Your task to perform on an android device: find which apps use the phone's location Image 0: 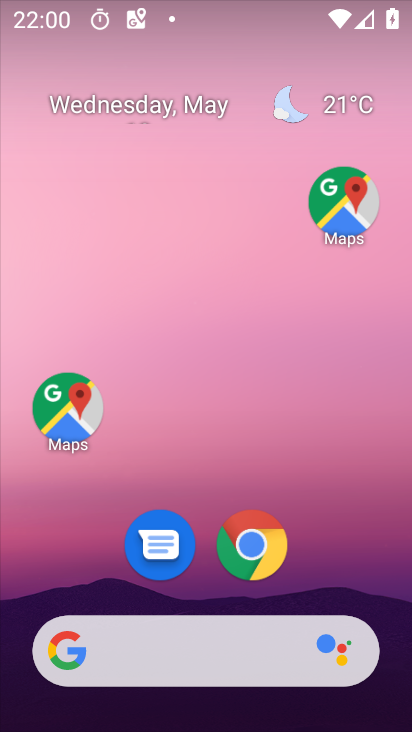
Step 0: drag from (315, 584) to (229, 3)
Your task to perform on an android device: find which apps use the phone's location Image 1: 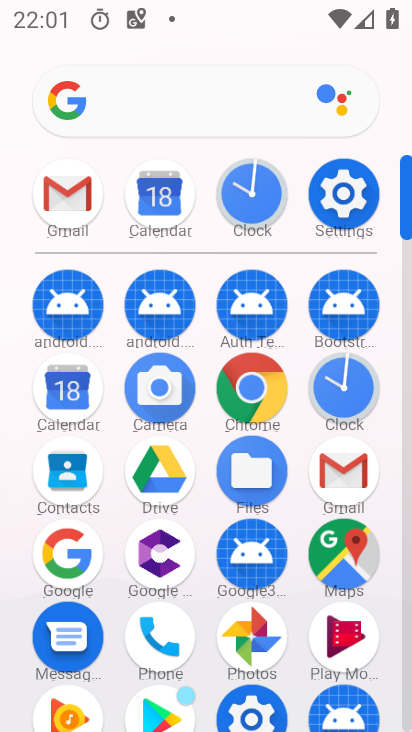
Step 1: click (329, 186)
Your task to perform on an android device: find which apps use the phone's location Image 2: 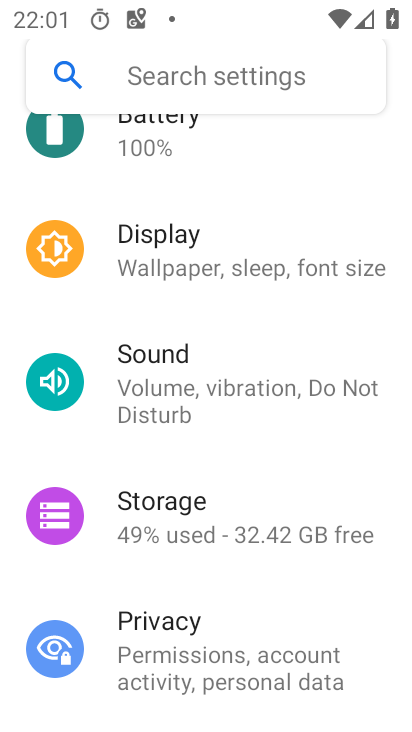
Step 2: drag from (217, 581) to (190, 375)
Your task to perform on an android device: find which apps use the phone's location Image 3: 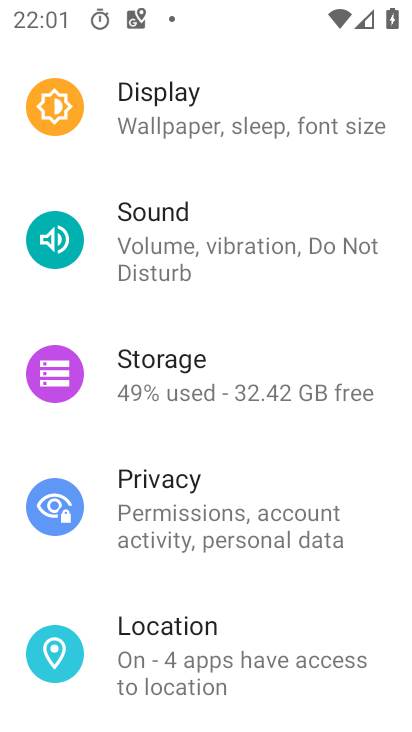
Step 3: click (196, 659)
Your task to perform on an android device: find which apps use the phone's location Image 4: 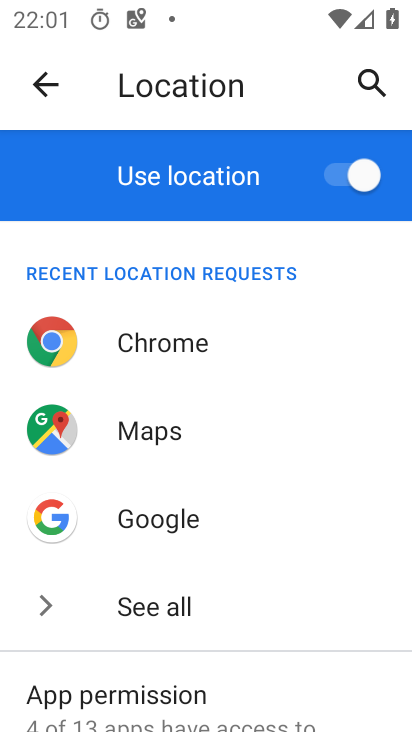
Step 4: drag from (164, 675) to (164, 469)
Your task to perform on an android device: find which apps use the phone's location Image 5: 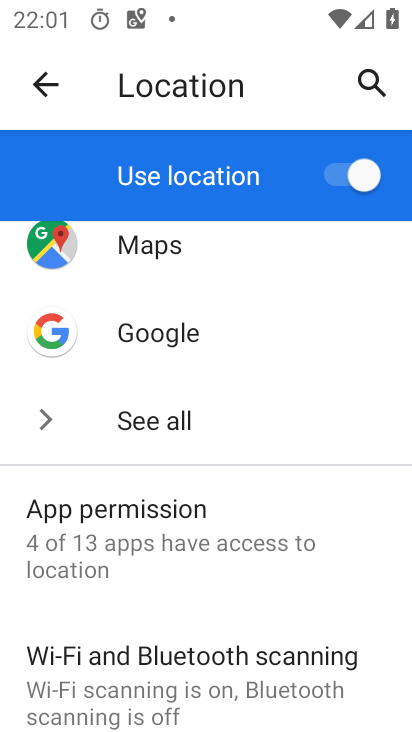
Step 5: drag from (150, 690) to (162, 417)
Your task to perform on an android device: find which apps use the phone's location Image 6: 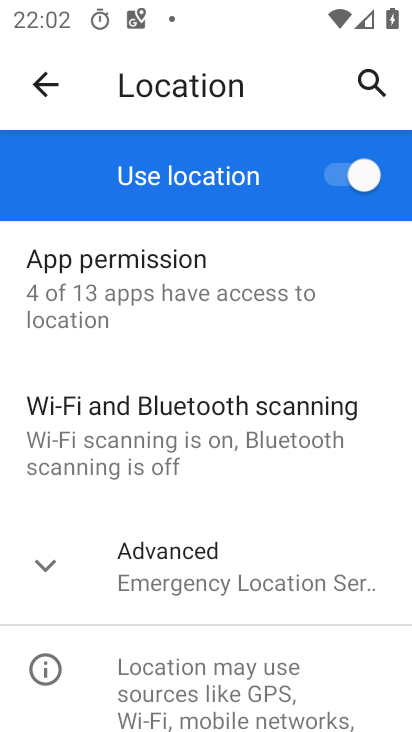
Step 6: click (114, 307)
Your task to perform on an android device: find which apps use the phone's location Image 7: 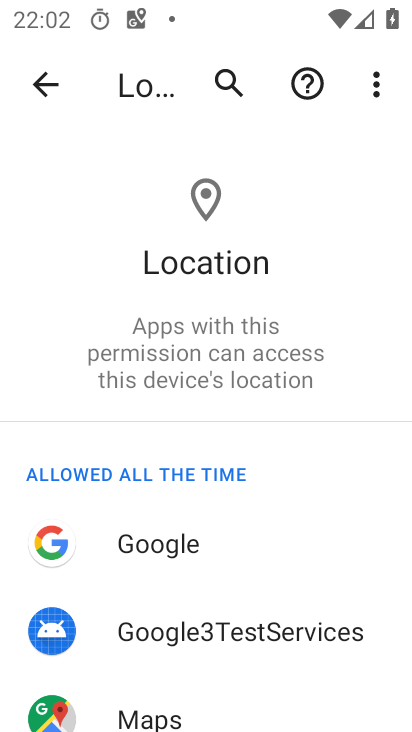
Step 7: task complete